Your task to perform on an android device: set an alarm Image 0: 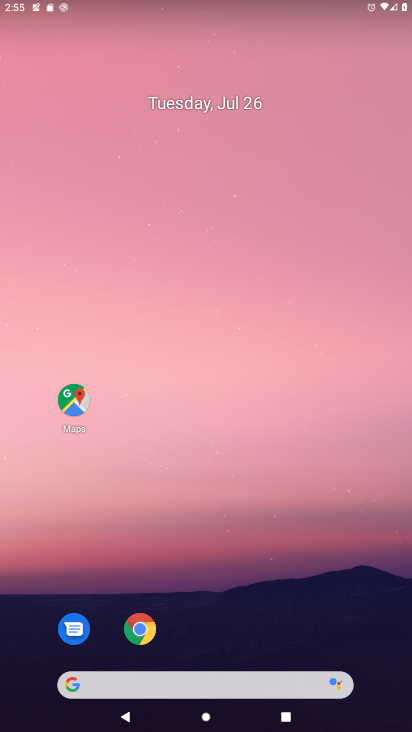
Step 0: drag from (222, 626) to (258, 212)
Your task to perform on an android device: set an alarm Image 1: 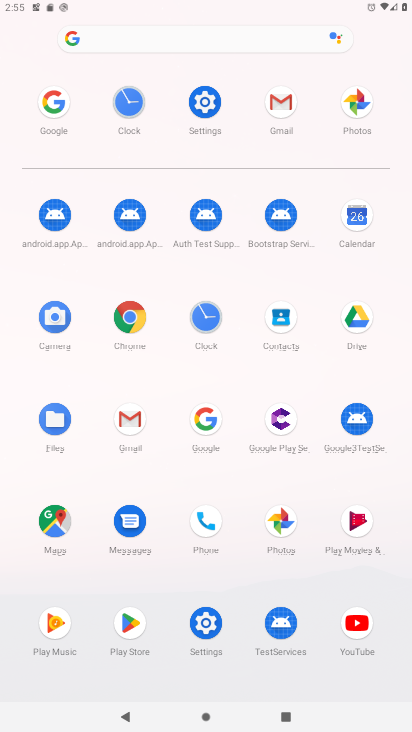
Step 1: click (123, 122)
Your task to perform on an android device: set an alarm Image 2: 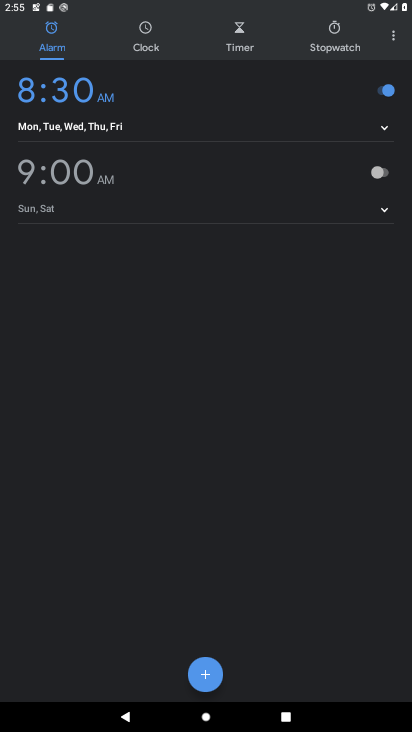
Step 2: click (373, 180)
Your task to perform on an android device: set an alarm Image 3: 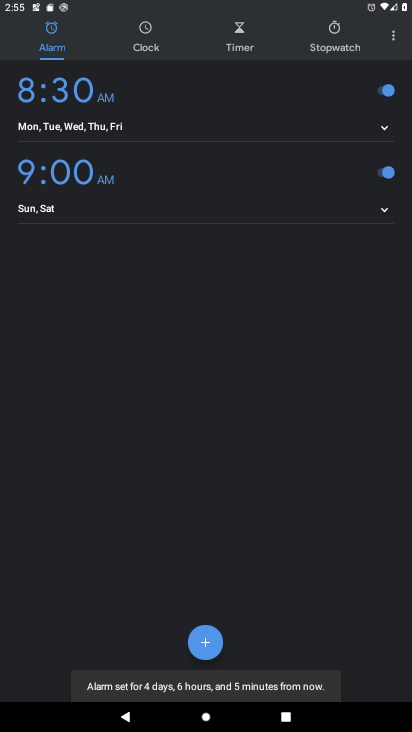
Step 3: task complete